Your task to perform on an android device: show emergency info Image 0: 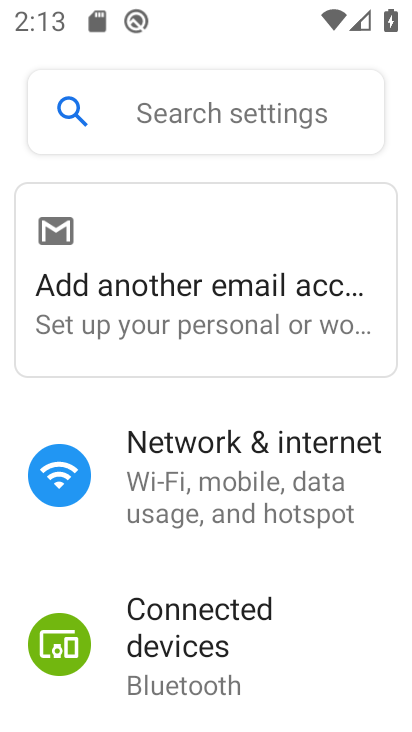
Step 0: press home button
Your task to perform on an android device: show emergency info Image 1: 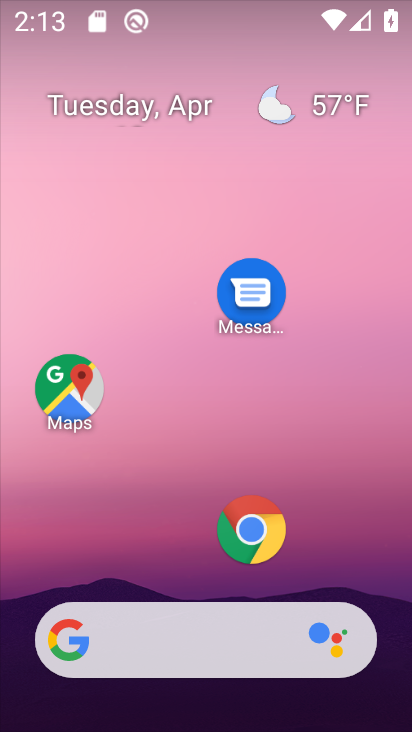
Step 1: drag from (154, 464) to (245, 103)
Your task to perform on an android device: show emergency info Image 2: 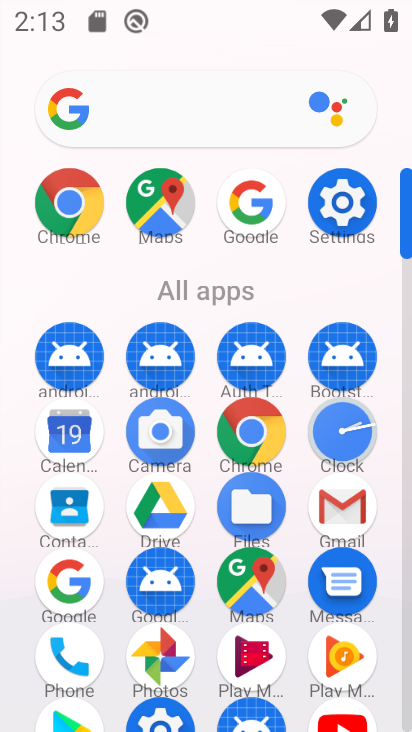
Step 2: click (338, 204)
Your task to perform on an android device: show emergency info Image 3: 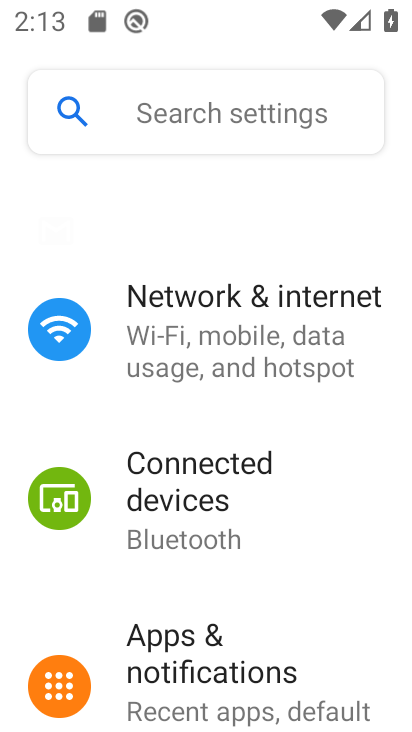
Step 3: drag from (230, 540) to (327, 111)
Your task to perform on an android device: show emergency info Image 4: 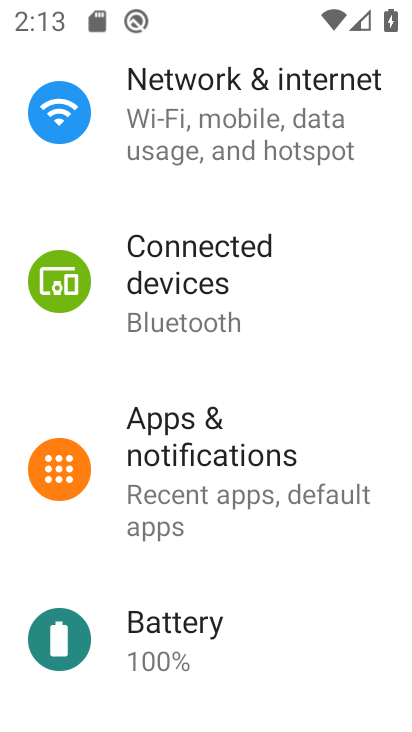
Step 4: drag from (201, 624) to (266, 147)
Your task to perform on an android device: show emergency info Image 5: 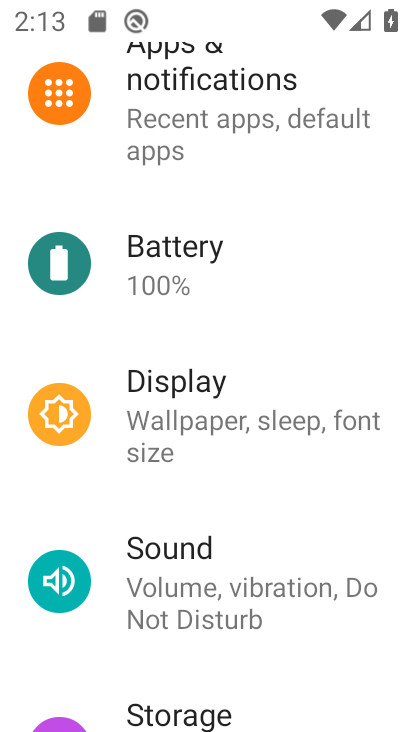
Step 5: drag from (182, 638) to (273, 278)
Your task to perform on an android device: show emergency info Image 6: 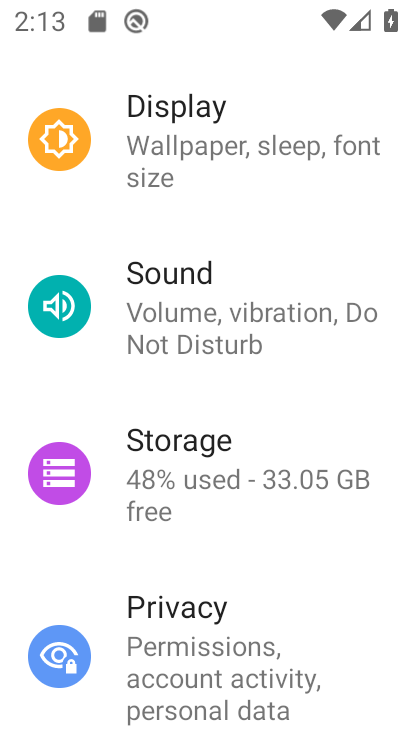
Step 6: drag from (205, 671) to (307, 271)
Your task to perform on an android device: show emergency info Image 7: 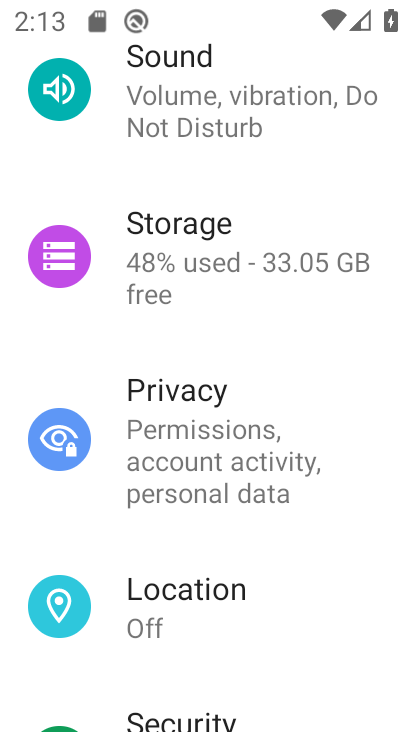
Step 7: drag from (184, 624) to (277, 275)
Your task to perform on an android device: show emergency info Image 8: 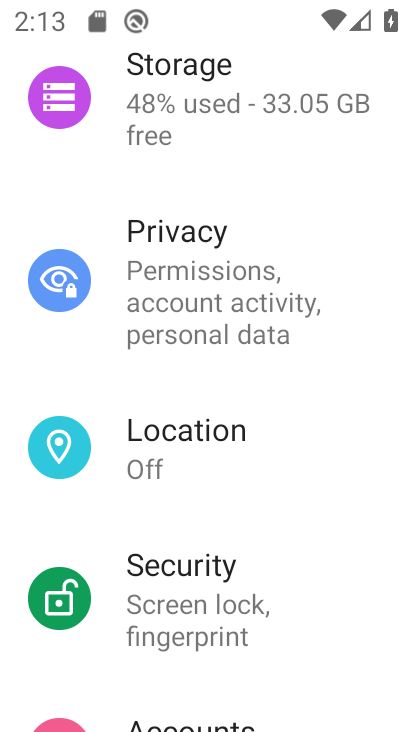
Step 8: drag from (203, 654) to (335, 62)
Your task to perform on an android device: show emergency info Image 9: 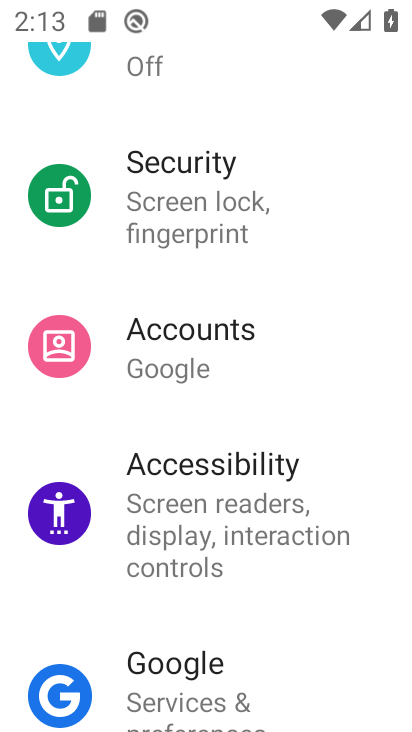
Step 9: drag from (176, 657) to (342, 188)
Your task to perform on an android device: show emergency info Image 10: 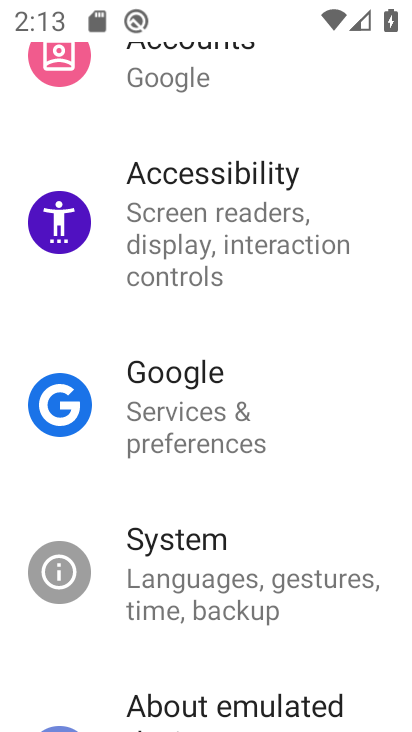
Step 10: drag from (210, 687) to (289, 311)
Your task to perform on an android device: show emergency info Image 11: 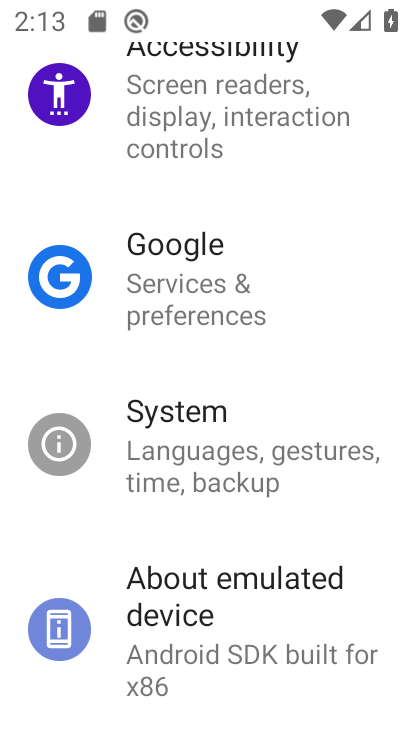
Step 11: click (232, 646)
Your task to perform on an android device: show emergency info Image 12: 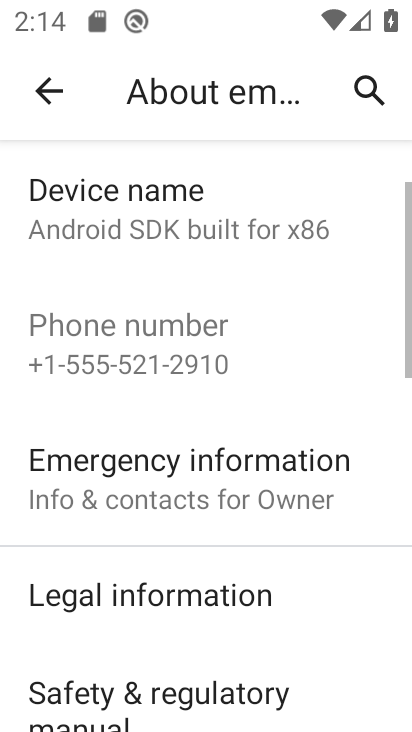
Step 12: click (247, 478)
Your task to perform on an android device: show emergency info Image 13: 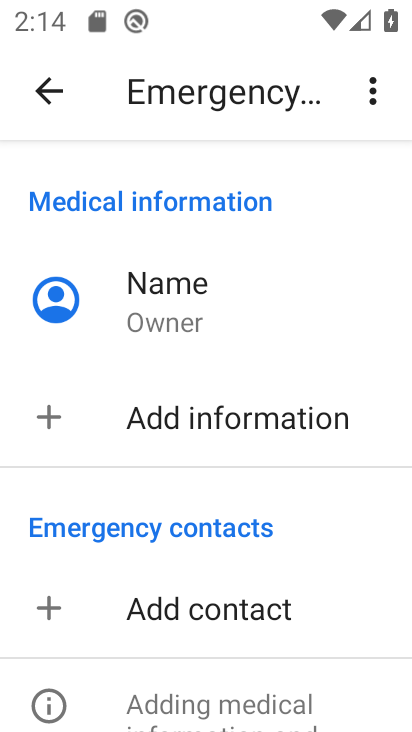
Step 13: task complete